Your task to perform on an android device: Open Google Image 0: 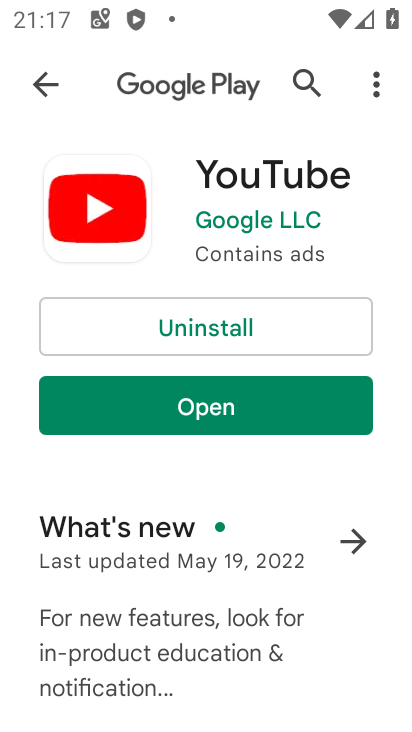
Step 0: press home button
Your task to perform on an android device: Open Google Image 1: 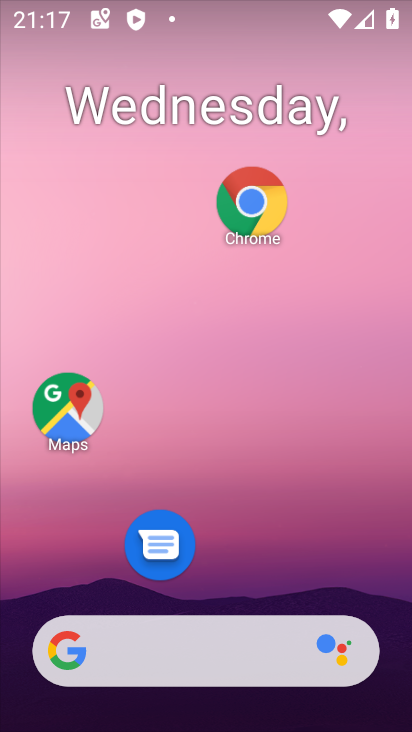
Step 1: click (201, 638)
Your task to perform on an android device: Open Google Image 2: 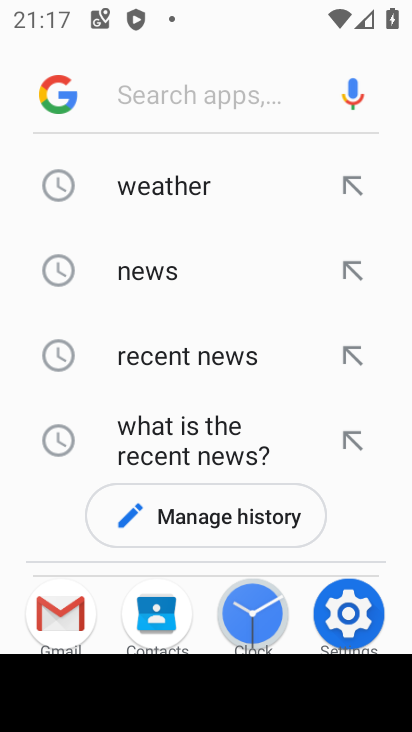
Step 2: task complete